Your task to perform on an android device: Go to ESPN.com Image 0: 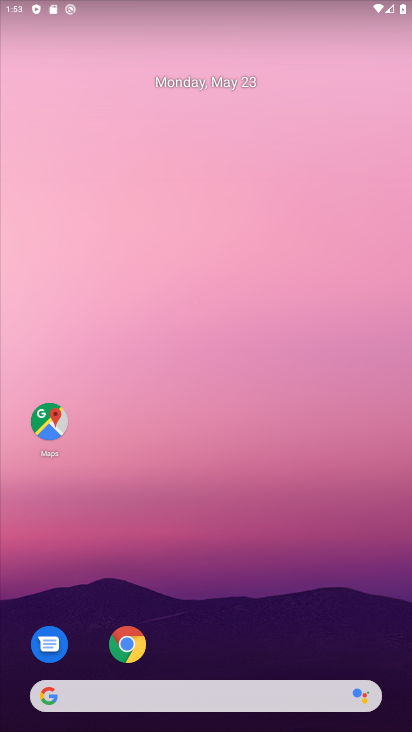
Step 0: drag from (332, 542) to (298, 1)
Your task to perform on an android device: Go to ESPN.com Image 1: 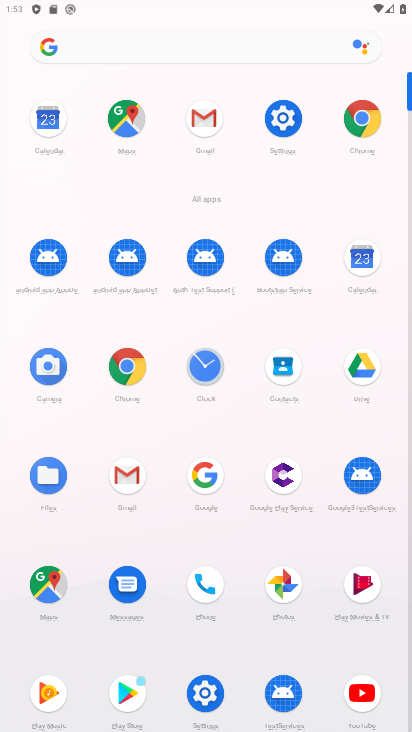
Step 1: click (356, 119)
Your task to perform on an android device: Go to ESPN.com Image 2: 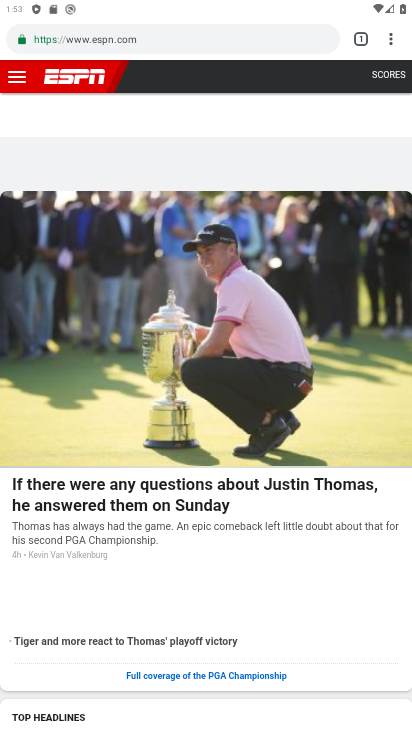
Step 2: task complete